Your task to perform on an android device: Is it going to rain this weekend? Image 0: 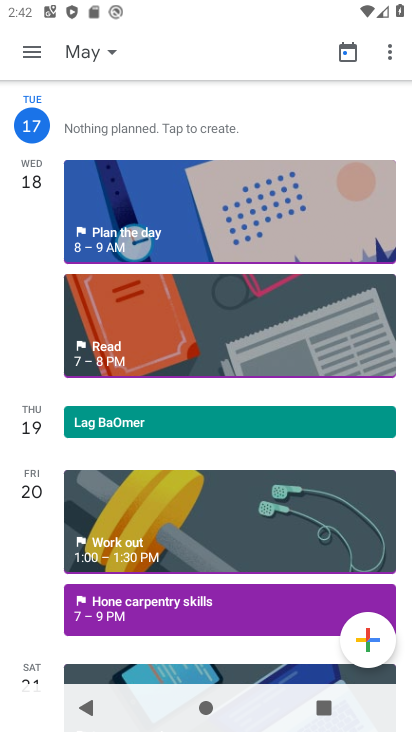
Step 0: press home button
Your task to perform on an android device: Is it going to rain this weekend? Image 1: 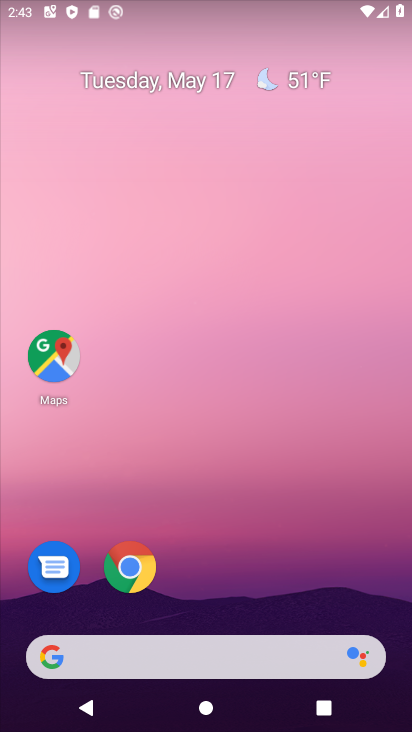
Step 1: click (309, 81)
Your task to perform on an android device: Is it going to rain this weekend? Image 2: 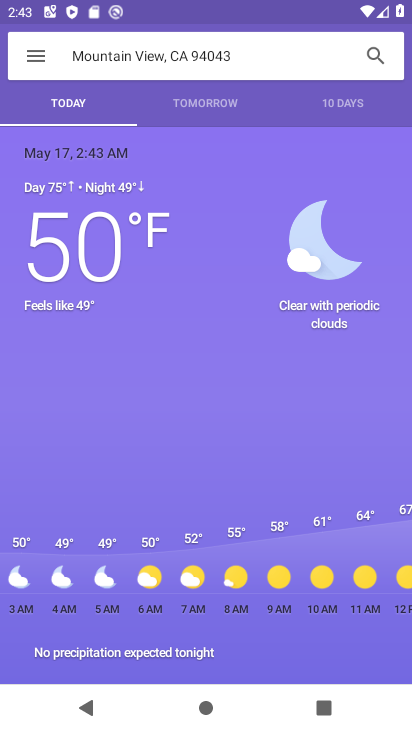
Step 2: click (342, 105)
Your task to perform on an android device: Is it going to rain this weekend? Image 3: 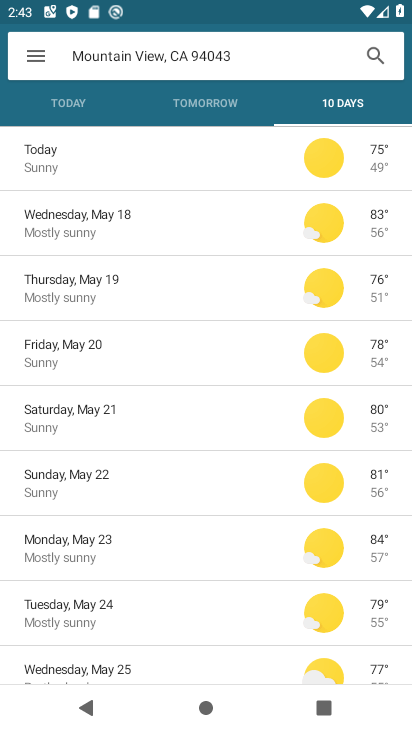
Step 3: task complete